Your task to perform on an android device: turn on airplane mode Image 0: 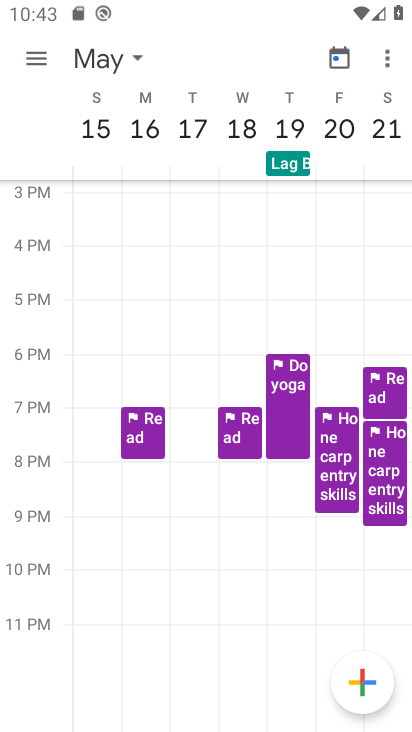
Step 0: press home button
Your task to perform on an android device: turn on airplane mode Image 1: 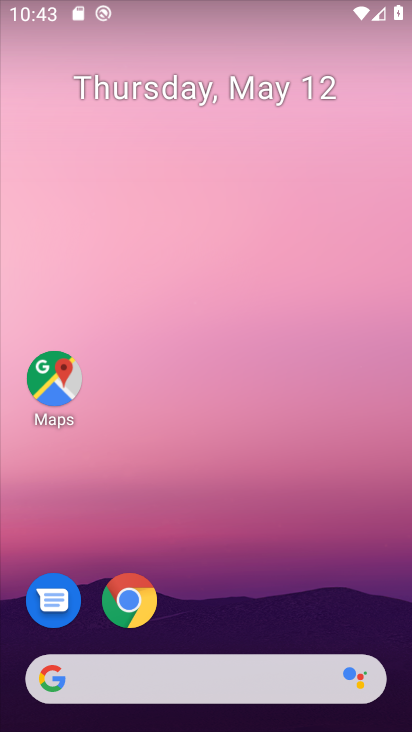
Step 1: drag from (215, 595) to (157, 82)
Your task to perform on an android device: turn on airplane mode Image 2: 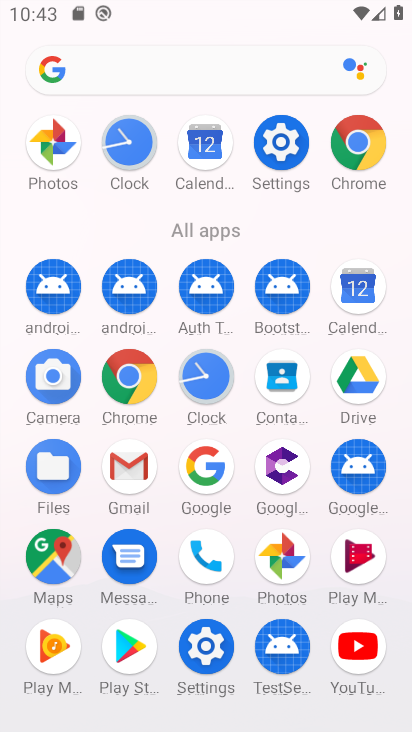
Step 2: click (273, 136)
Your task to perform on an android device: turn on airplane mode Image 3: 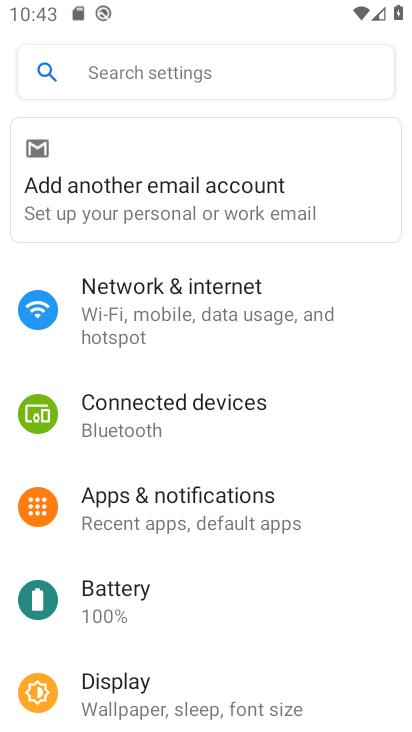
Step 3: click (225, 303)
Your task to perform on an android device: turn on airplane mode Image 4: 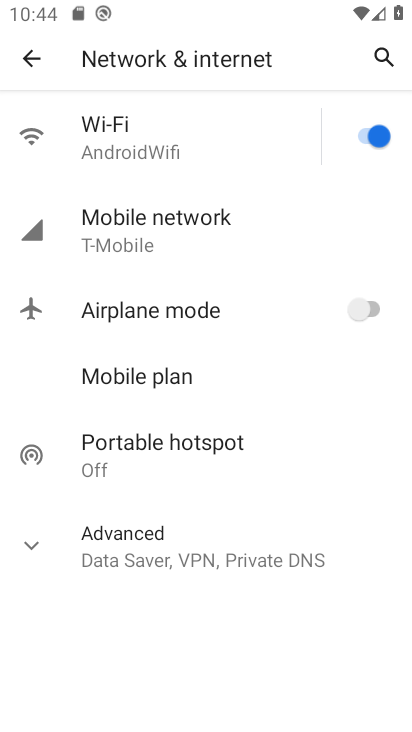
Step 4: click (363, 309)
Your task to perform on an android device: turn on airplane mode Image 5: 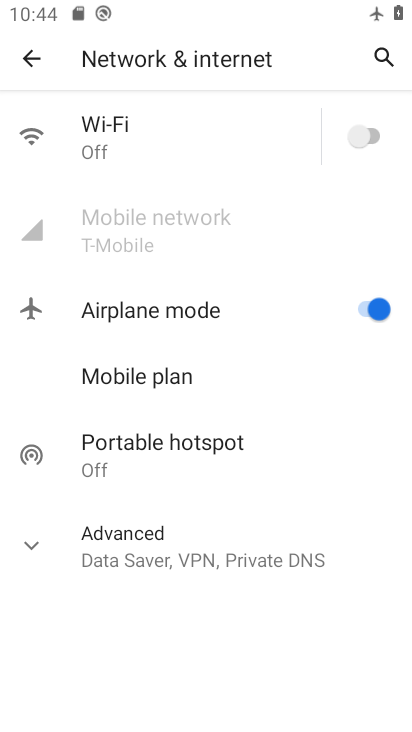
Step 5: task complete